Your task to perform on an android device: Open location settings Image 0: 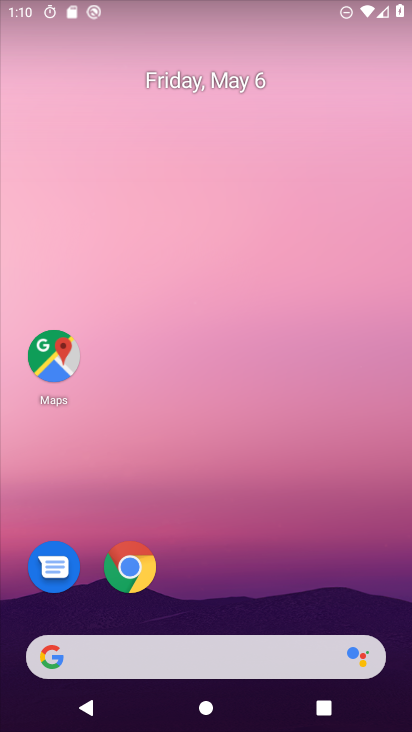
Step 0: press home button
Your task to perform on an android device: Open location settings Image 1: 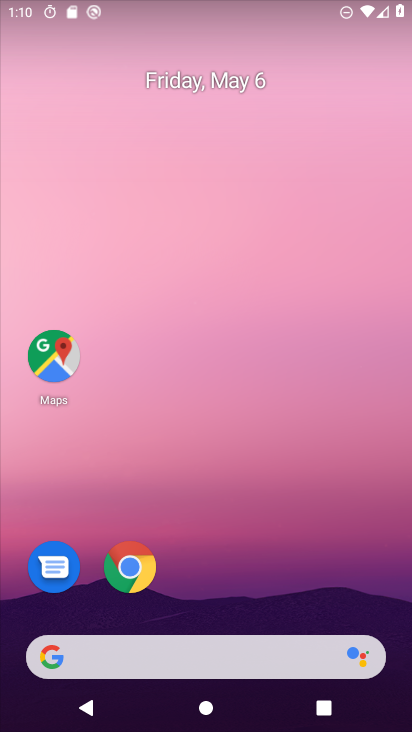
Step 1: drag from (265, 686) to (242, 253)
Your task to perform on an android device: Open location settings Image 2: 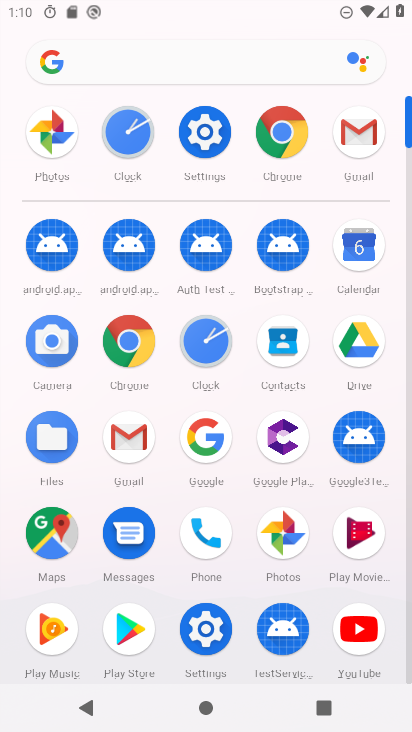
Step 2: click (213, 143)
Your task to perform on an android device: Open location settings Image 3: 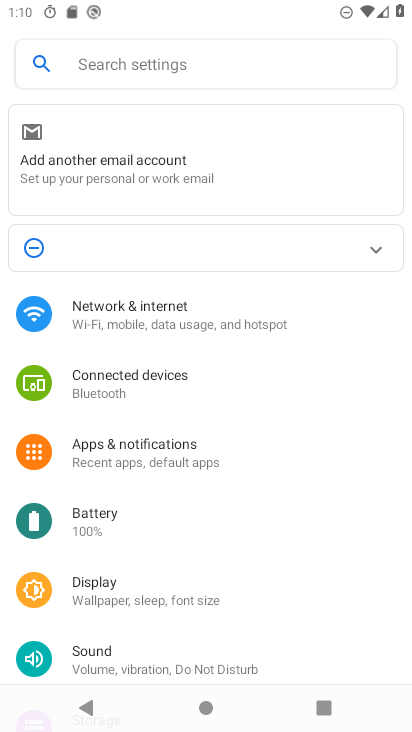
Step 3: click (150, 70)
Your task to perform on an android device: Open location settings Image 4: 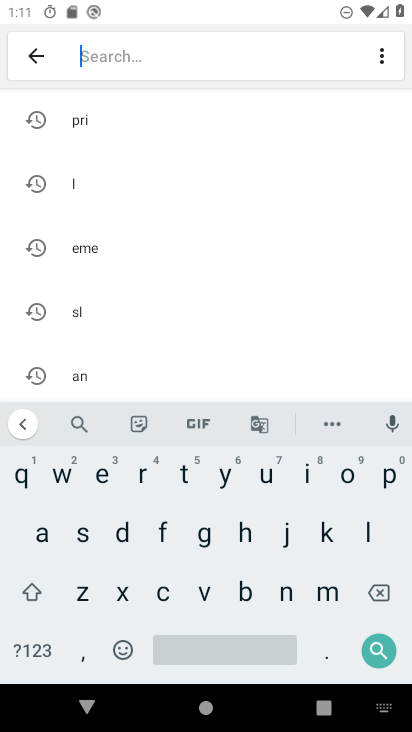
Step 4: click (372, 564)
Your task to perform on an android device: Open location settings Image 5: 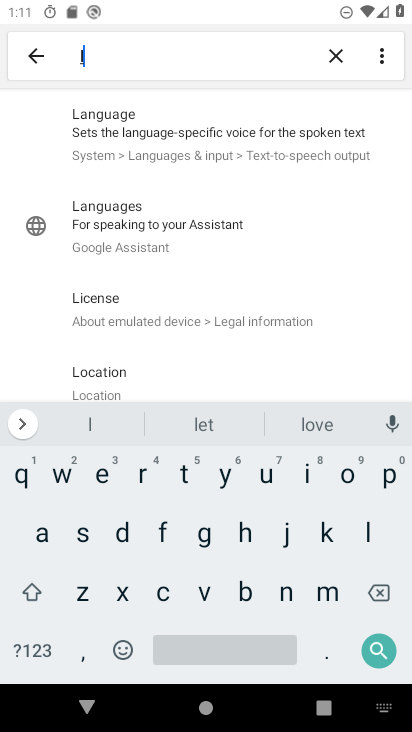
Step 5: click (132, 365)
Your task to perform on an android device: Open location settings Image 6: 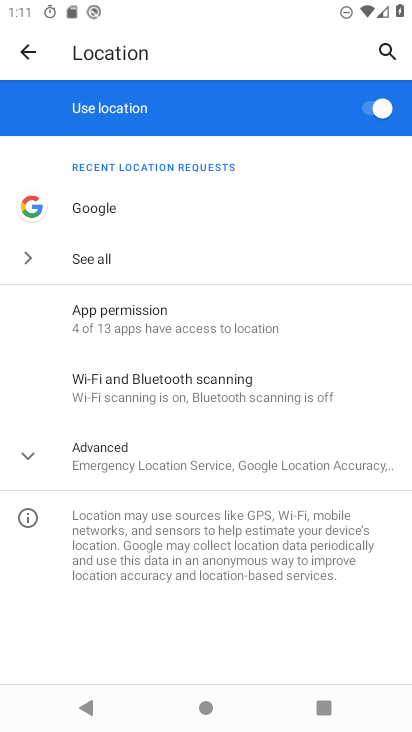
Step 6: task complete